Your task to perform on an android device: change notification settings in the gmail app Image 0: 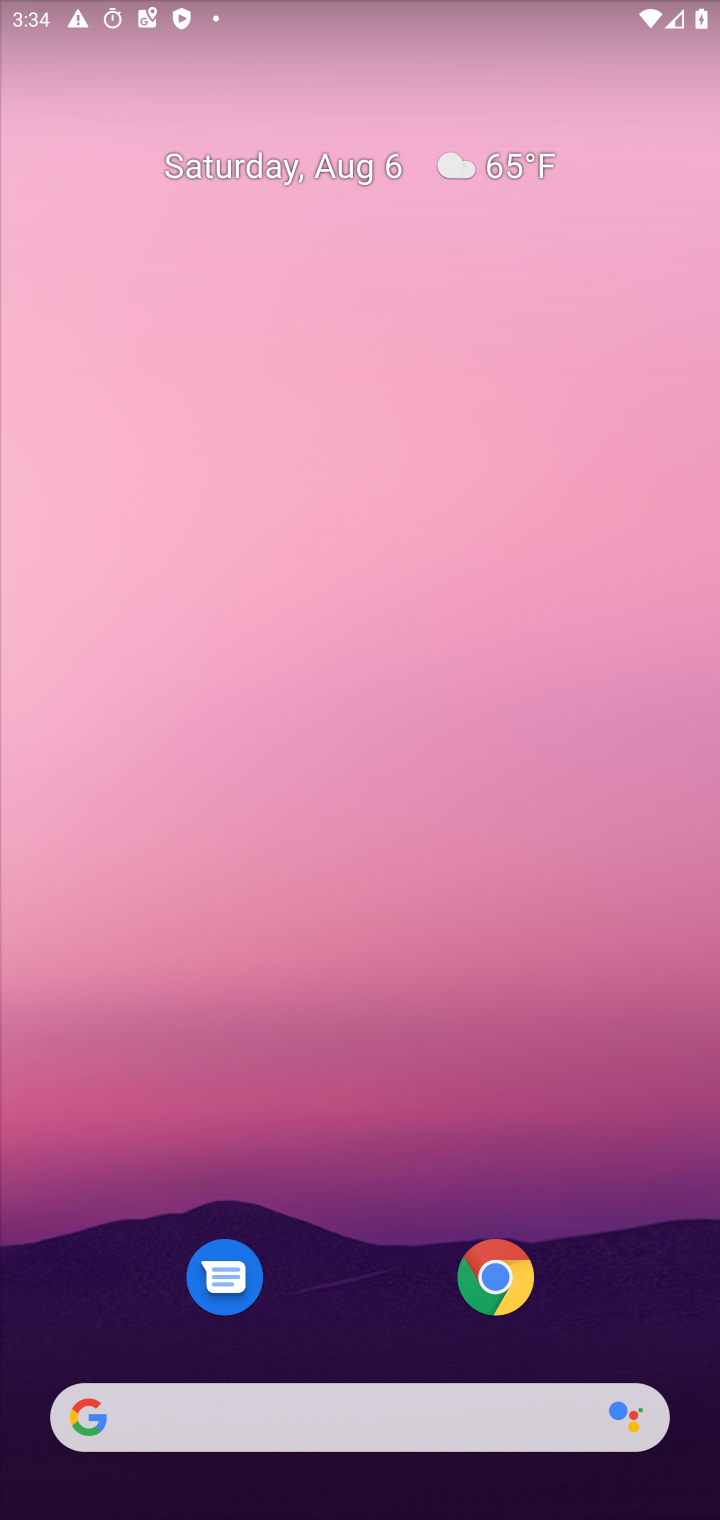
Step 0: drag from (418, 1408) to (517, 149)
Your task to perform on an android device: change notification settings in the gmail app Image 1: 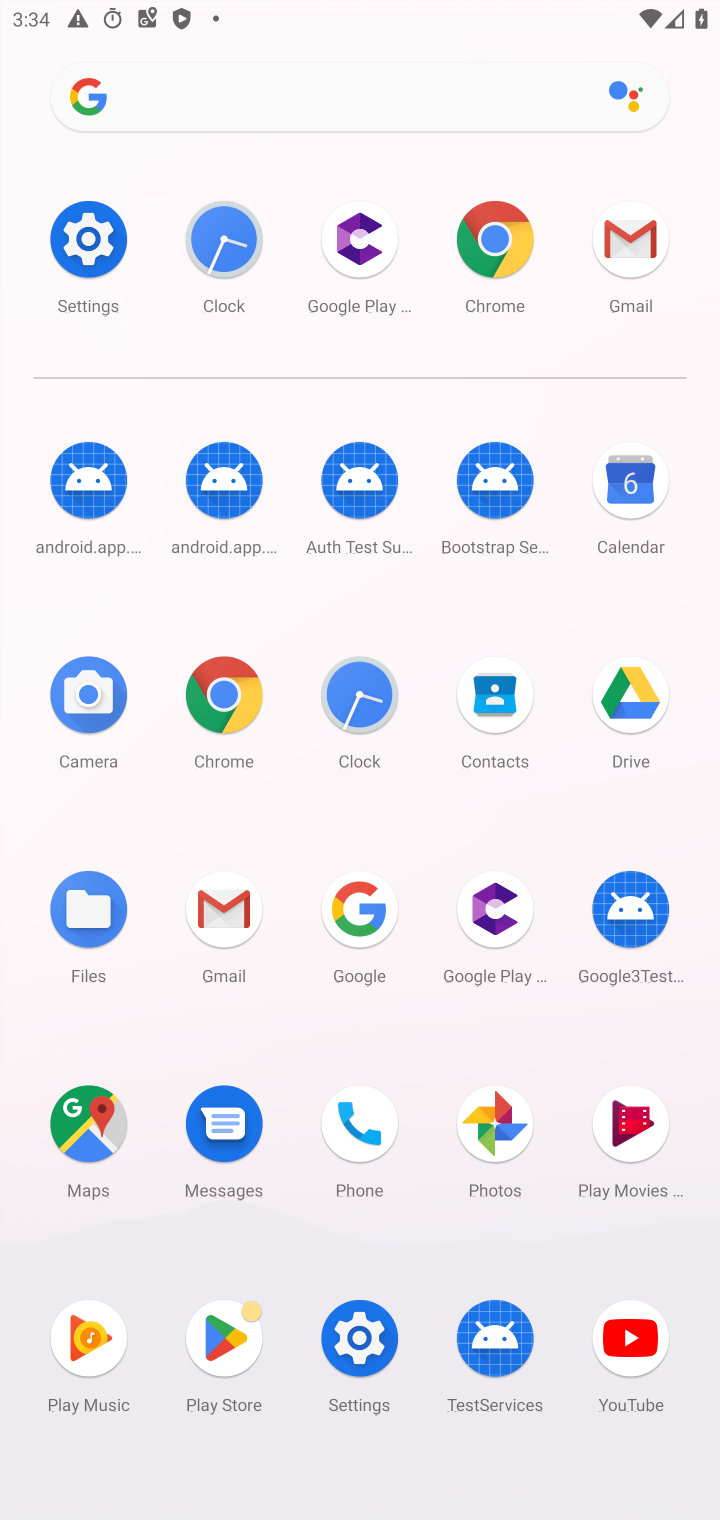
Step 1: click (246, 898)
Your task to perform on an android device: change notification settings in the gmail app Image 2: 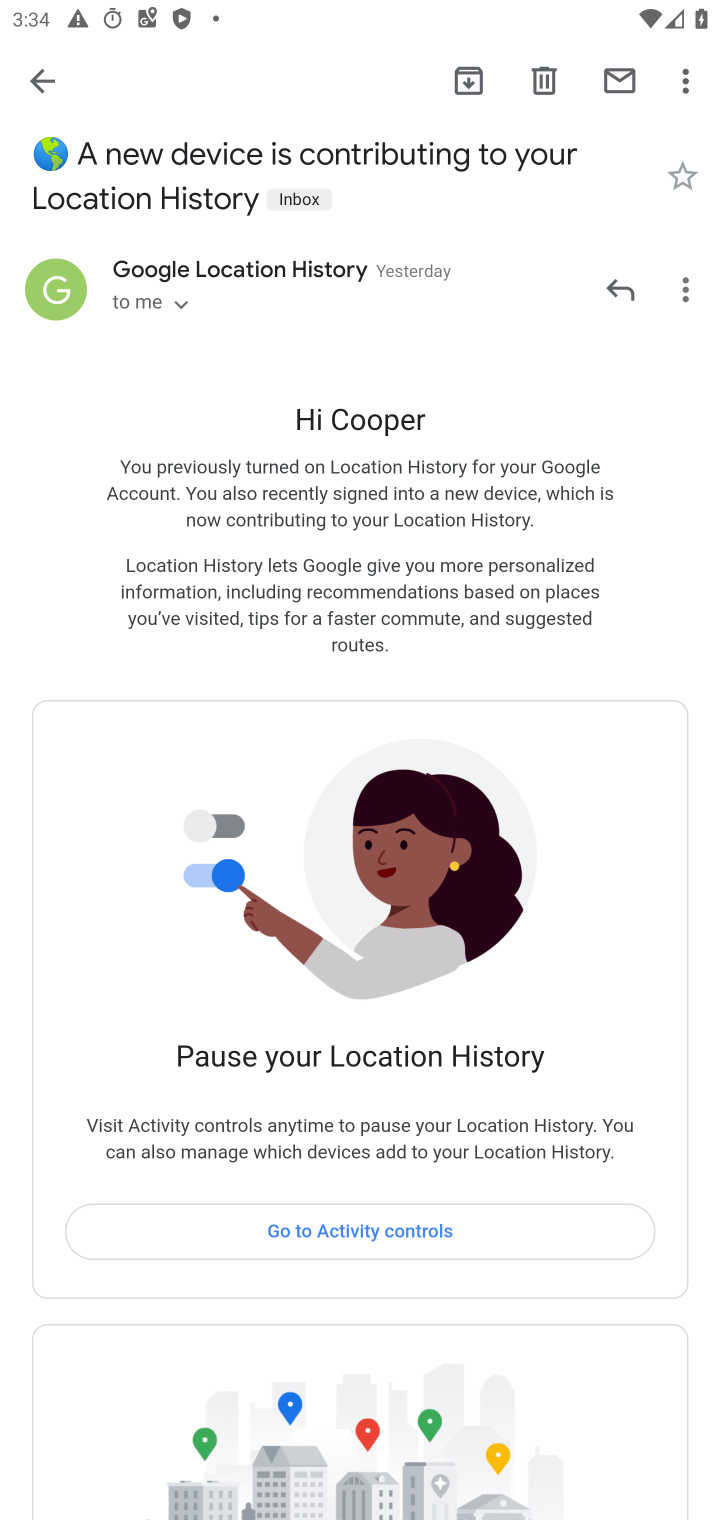
Step 2: press back button
Your task to perform on an android device: change notification settings in the gmail app Image 3: 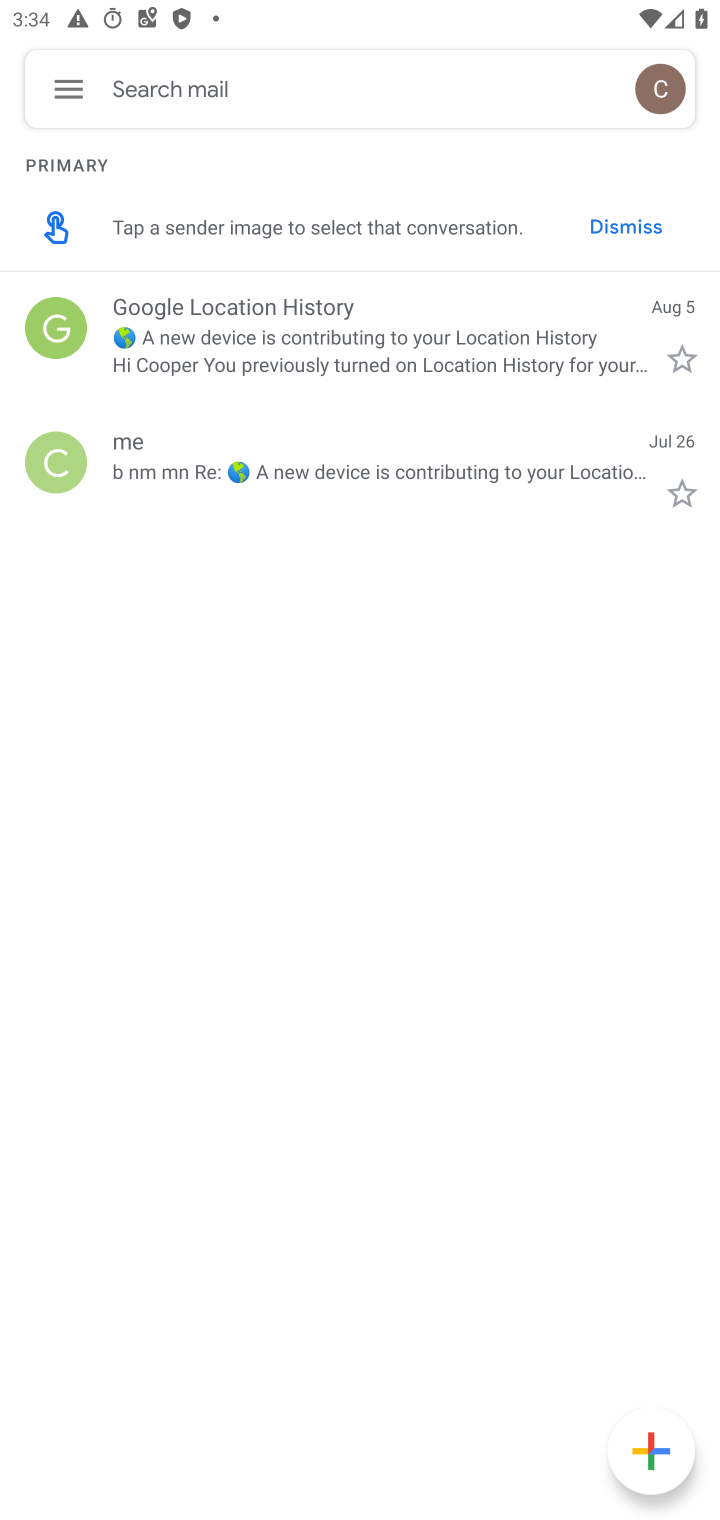
Step 3: click (68, 90)
Your task to perform on an android device: change notification settings in the gmail app Image 4: 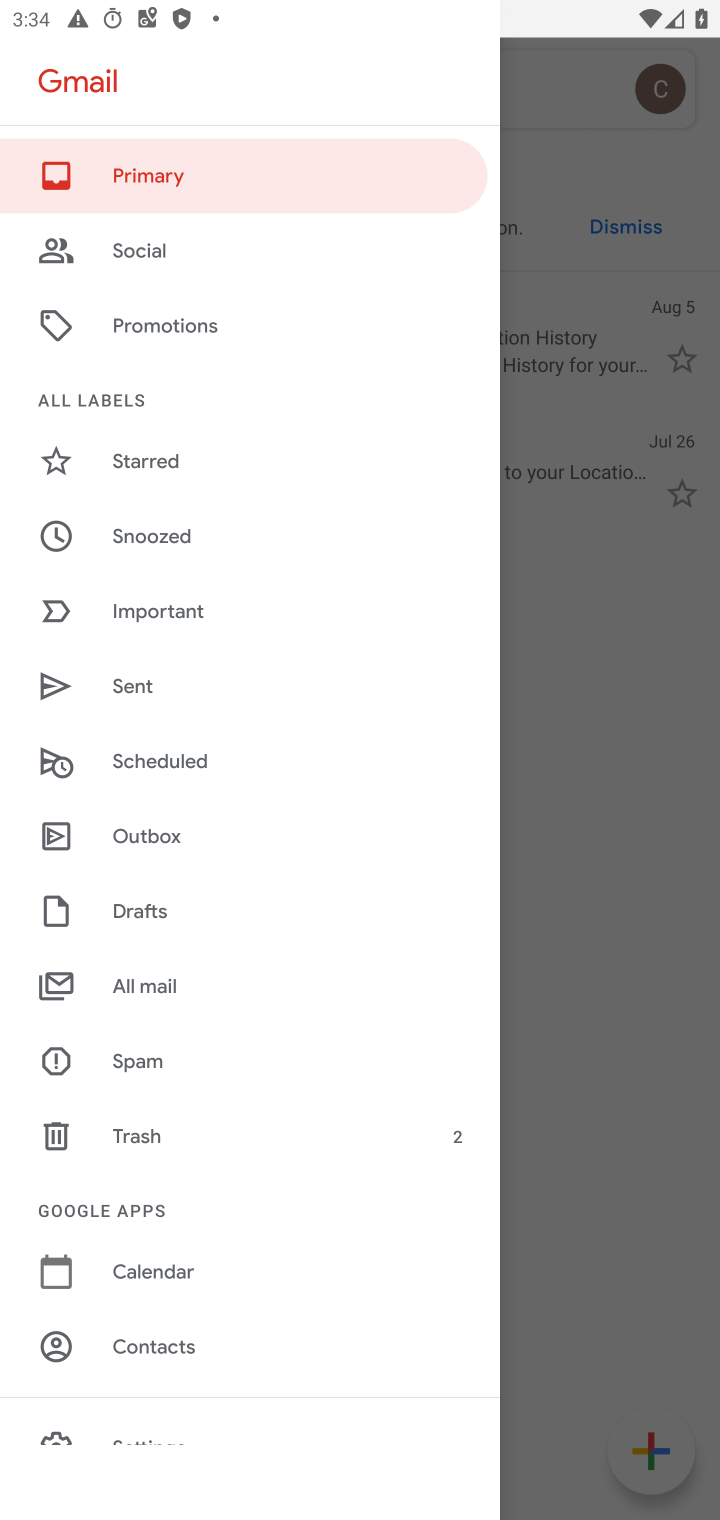
Step 4: drag from (350, 1343) to (324, 445)
Your task to perform on an android device: change notification settings in the gmail app Image 5: 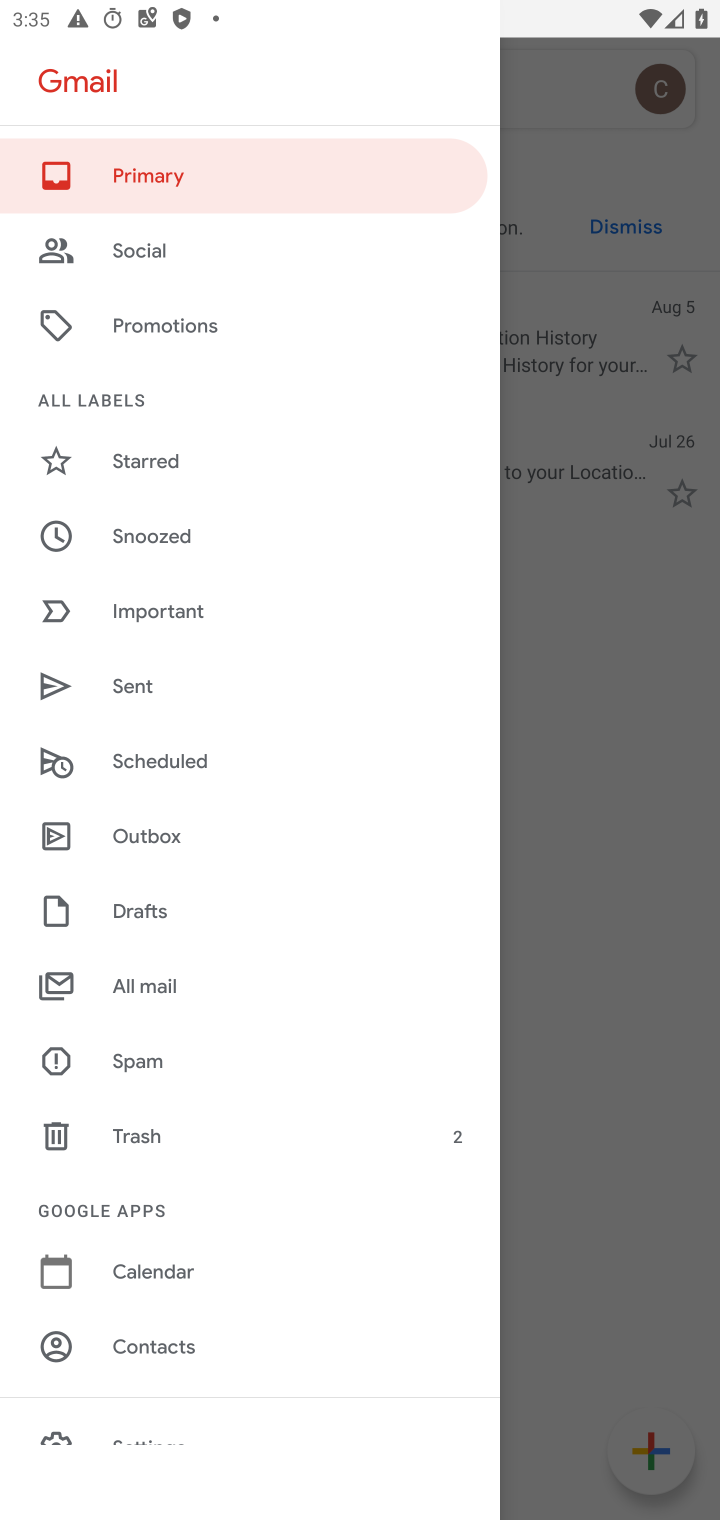
Step 5: drag from (297, 1379) to (273, 789)
Your task to perform on an android device: change notification settings in the gmail app Image 6: 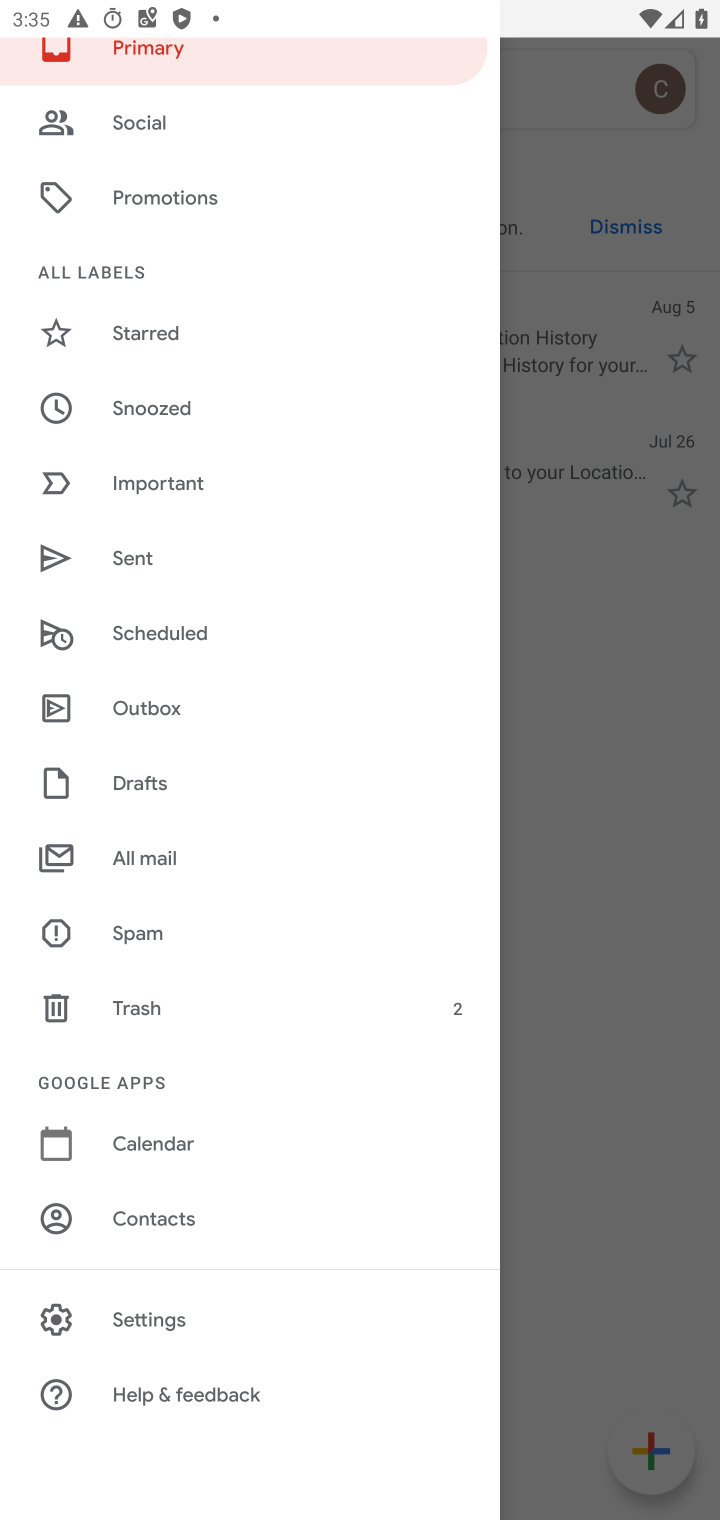
Step 6: click (175, 1324)
Your task to perform on an android device: change notification settings in the gmail app Image 7: 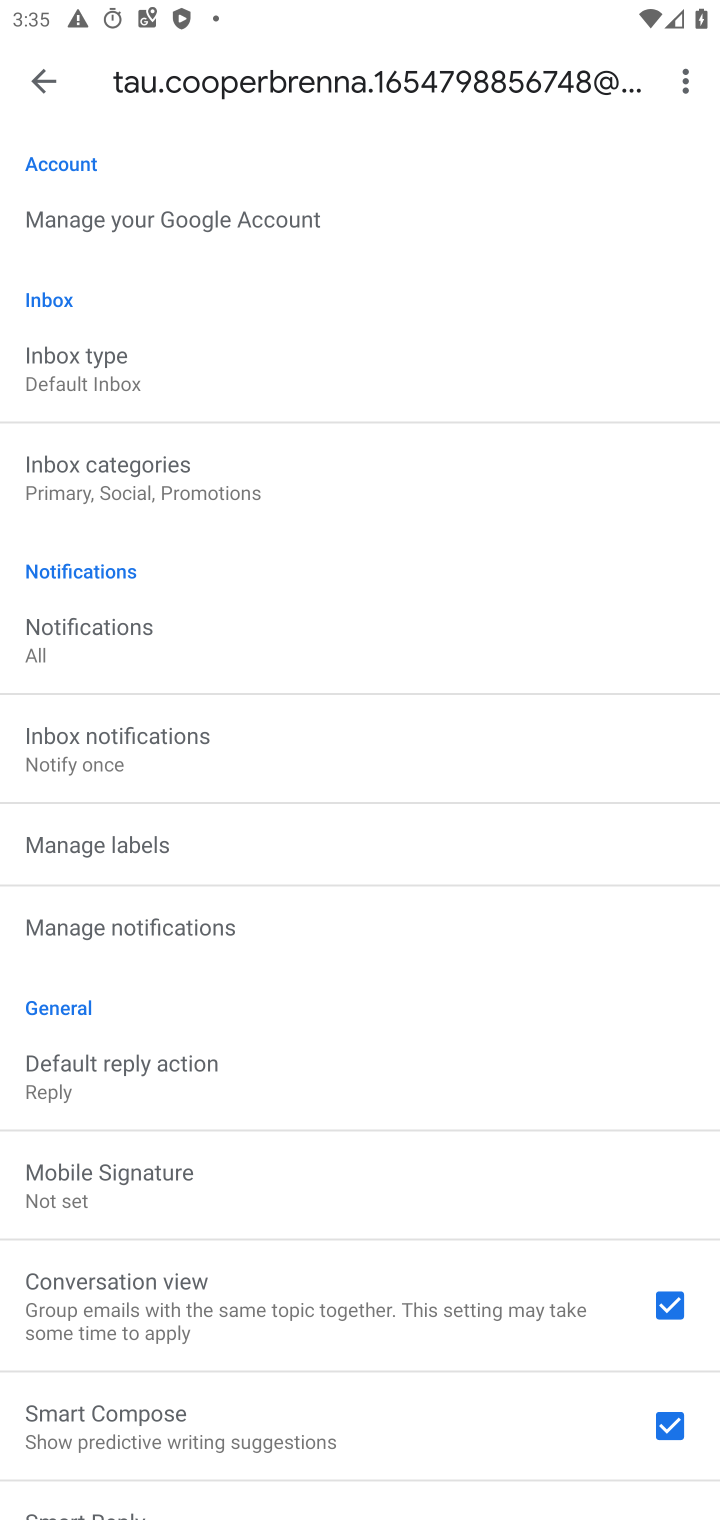
Step 7: click (145, 923)
Your task to perform on an android device: change notification settings in the gmail app Image 8: 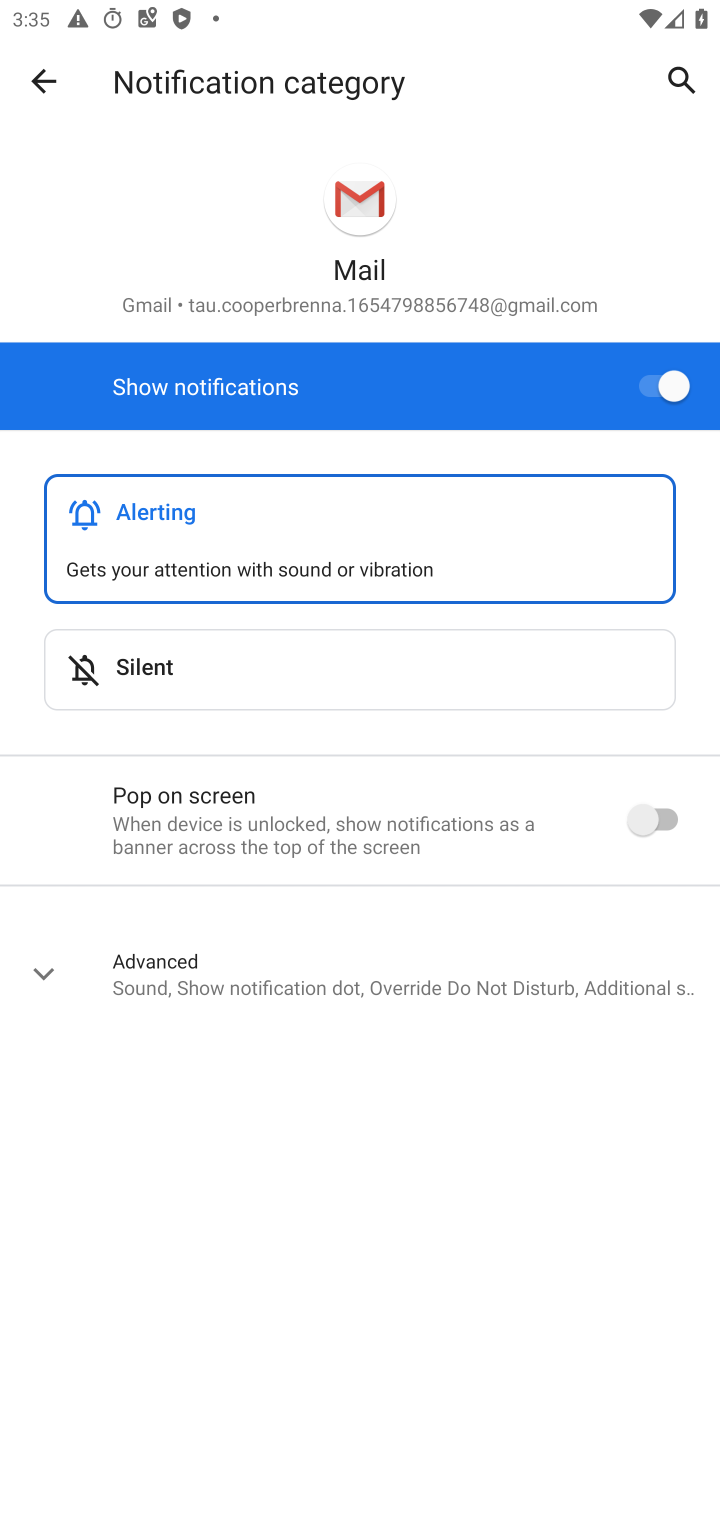
Step 8: click (651, 377)
Your task to perform on an android device: change notification settings in the gmail app Image 9: 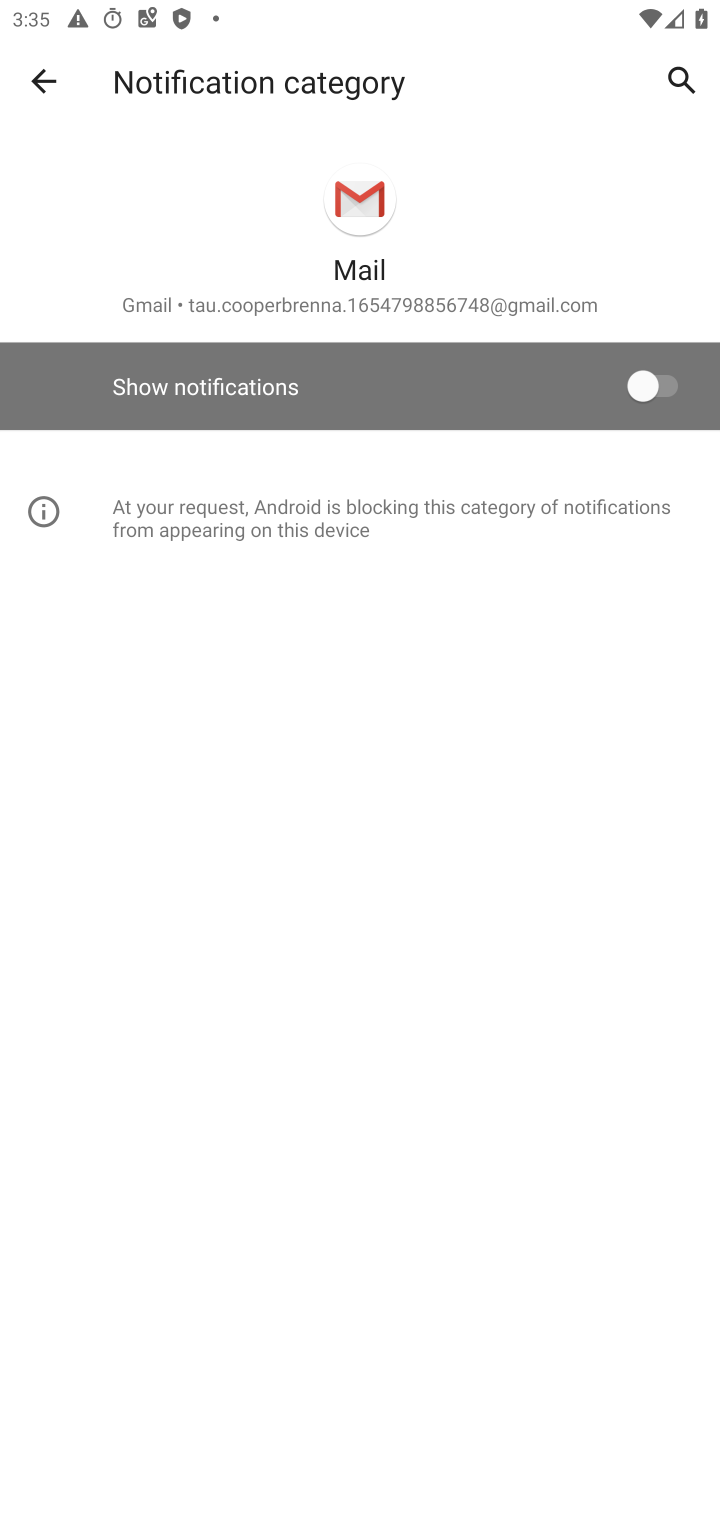
Step 9: task complete